Your task to perform on an android device: Open internet settings Image 0: 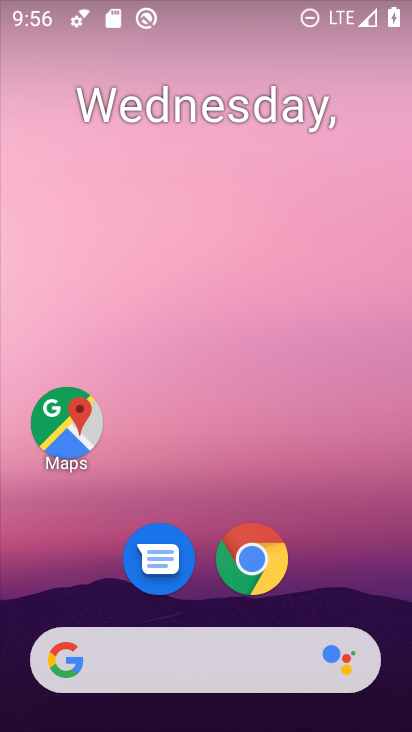
Step 0: drag from (291, 460) to (246, 0)
Your task to perform on an android device: Open internet settings Image 1: 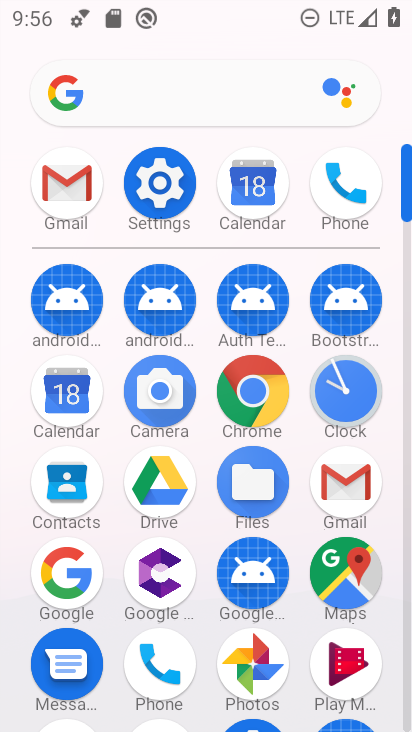
Step 1: click (162, 188)
Your task to perform on an android device: Open internet settings Image 2: 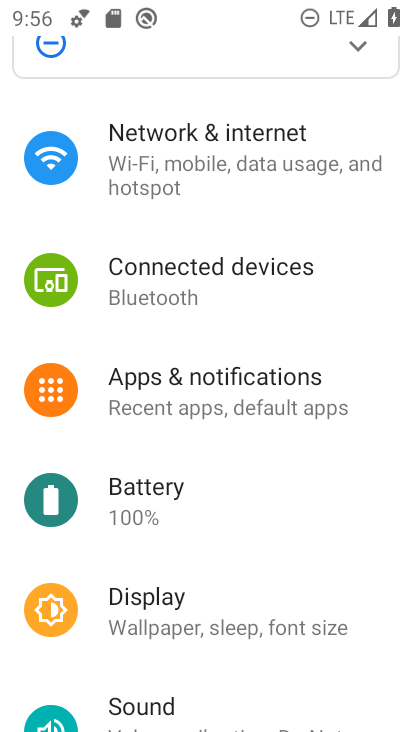
Step 2: click (205, 159)
Your task to perform on an android device: Open internet settings Image 3: 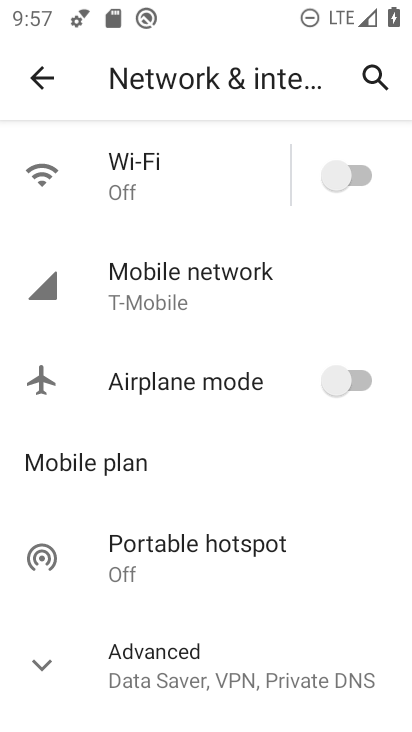
Step 3: task complete